Your task to perform on an android device: toggle javascript in the chrome app Image 0: 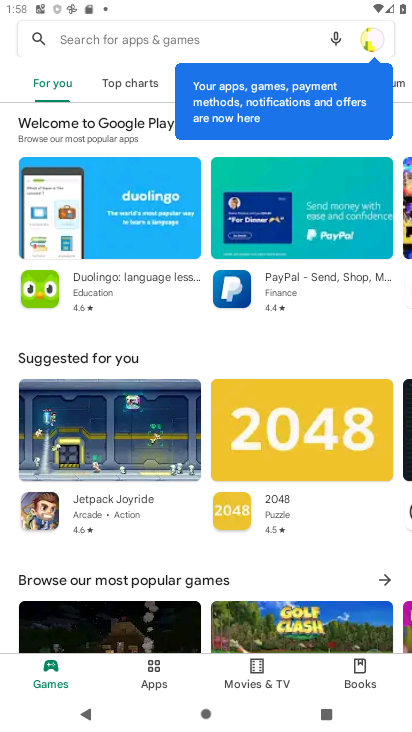
Step 0: press home button
Your task to perform on an android device: toggle javascript in the chrome app Image 1: 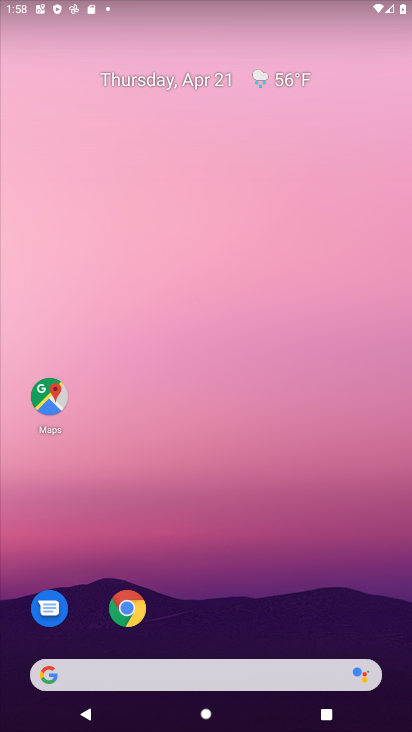
Step 1: click (126, 609)
Your task to perform on an android device: toggle javascript in the chrome app Image 2: 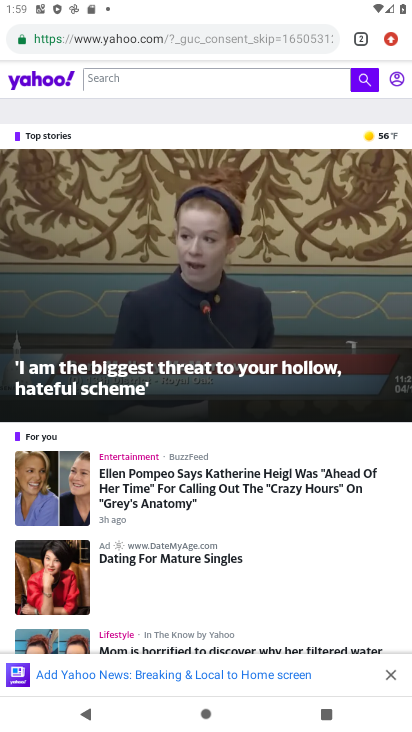
Step 2: click (392, 37)
Your task to perform on an android device: toggle javascript in the chrome app Image 3: 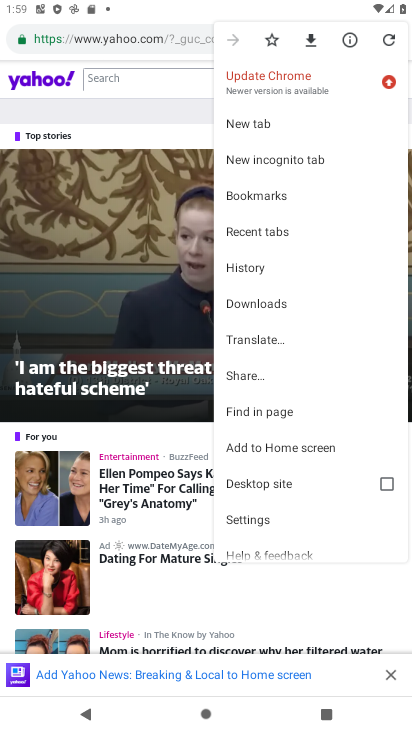
Step 3: click (250, 522)
Your task to perform on an android device: toggle javascript in the chrome app Image 4: 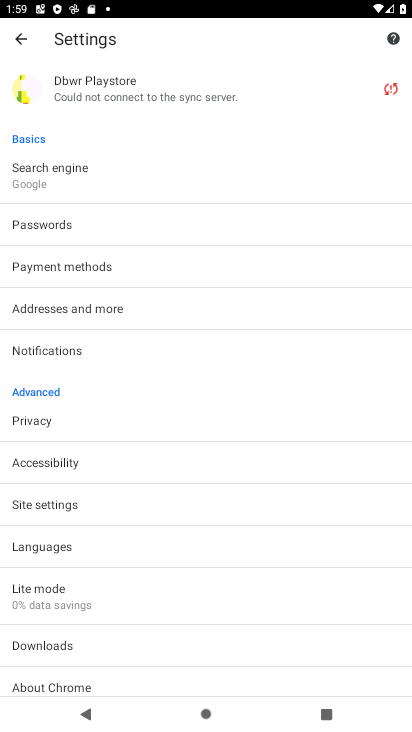
Step 4: click (63, 502)
Your task to perform on an android device: toggle javascript in the chrome app Image 5: 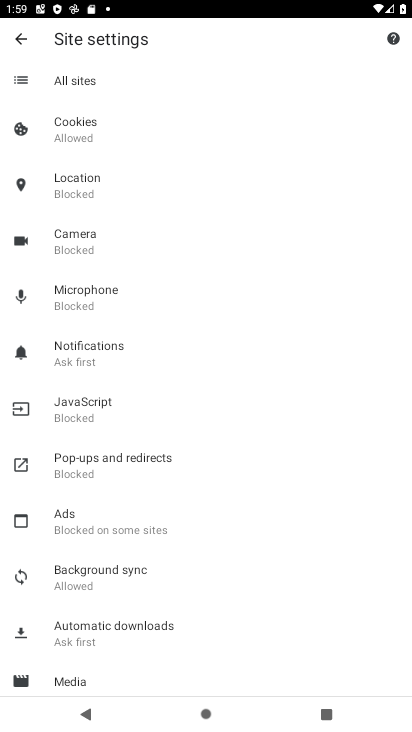
Step 5: click (81, 402)
Your task to perform on an android device: toggle javascript in the chrome app Image 6: 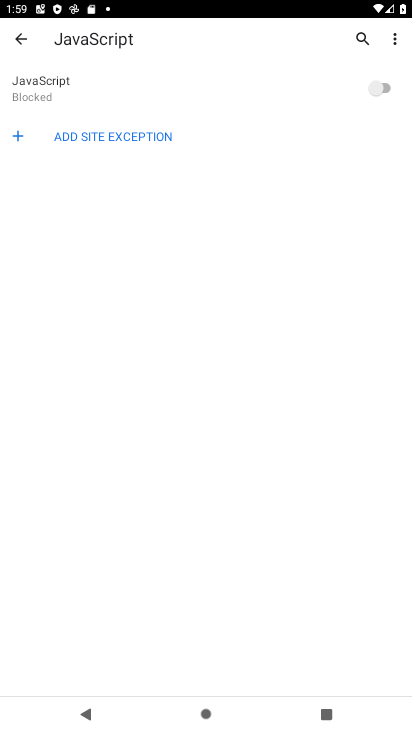
Step 6: click (381, 83)
Your task to perform on an android device: toggle javascript in the chrome app Image 7: 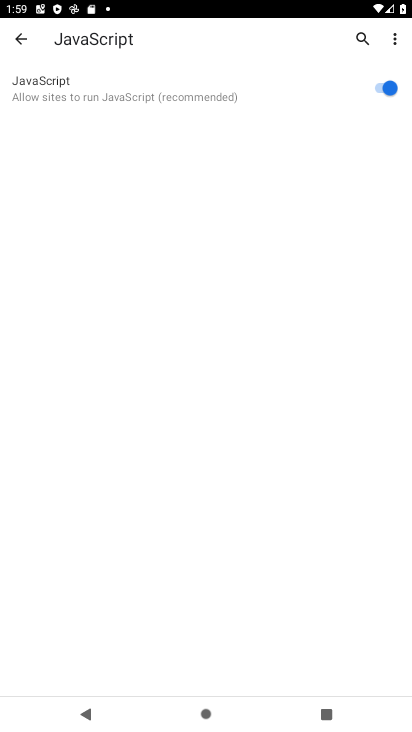
Step 7: task complete